Your task to perform on an android device: toggle airplane mode Image 0: 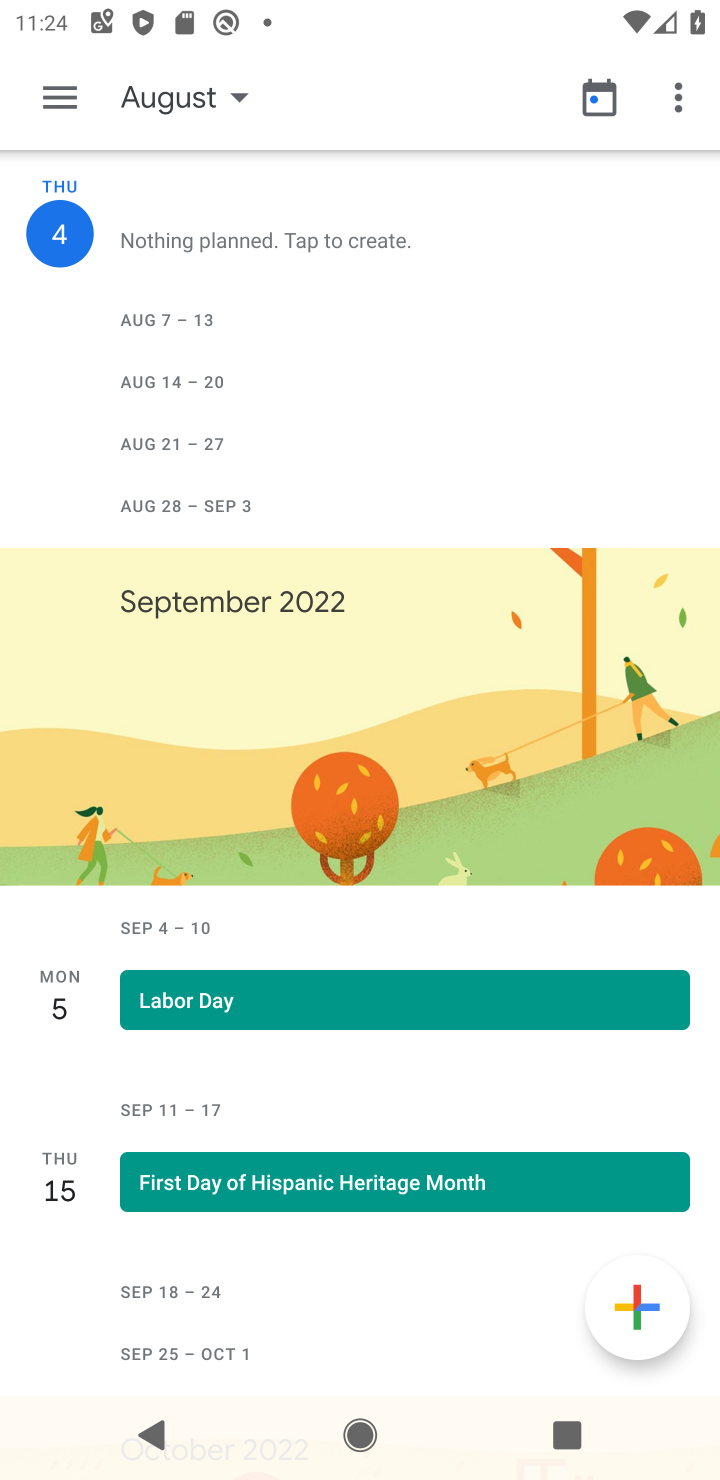
Step 0: press home button
Your task to perform on an android device: toggle airplane mode Image 1: 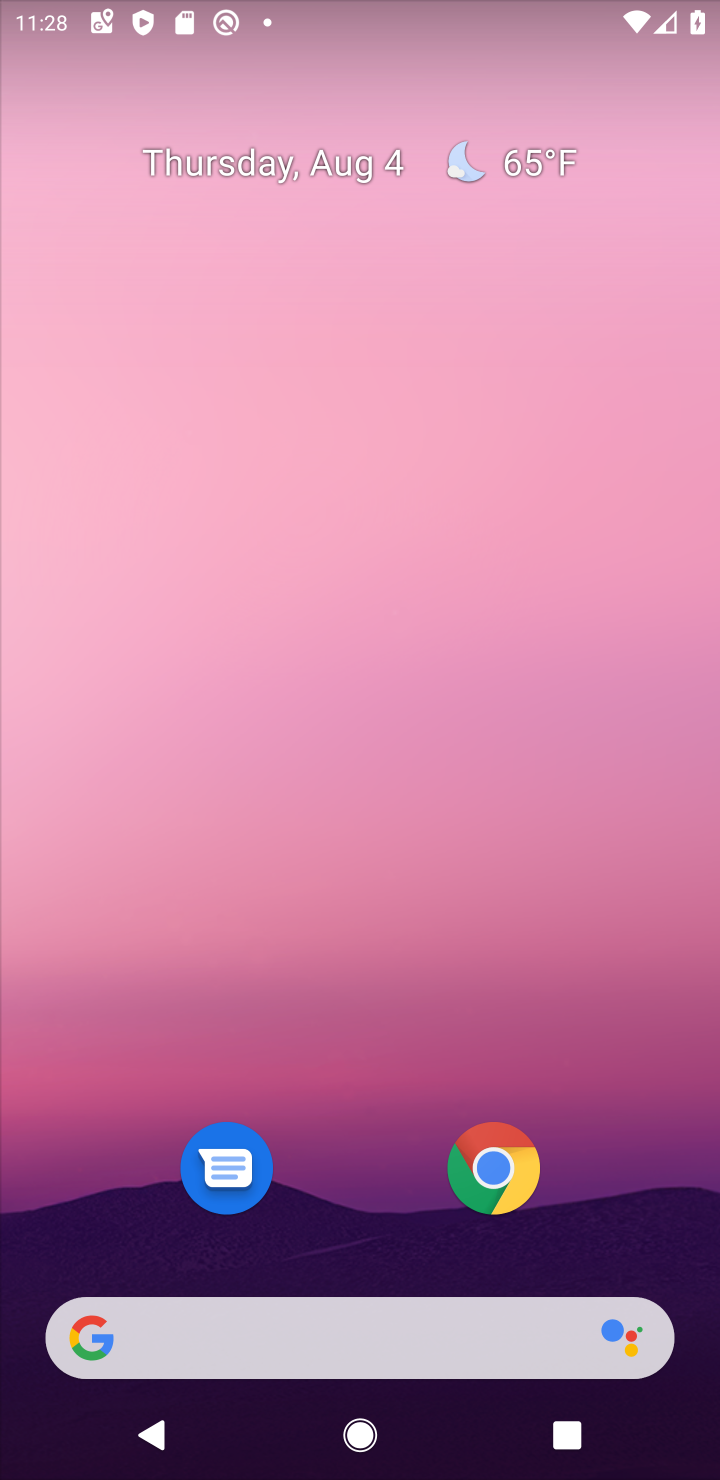
Step 1: drag from (366, 5) to (562, 1229)
Your task to perform on an android device: toggle airplane mode Image 2: 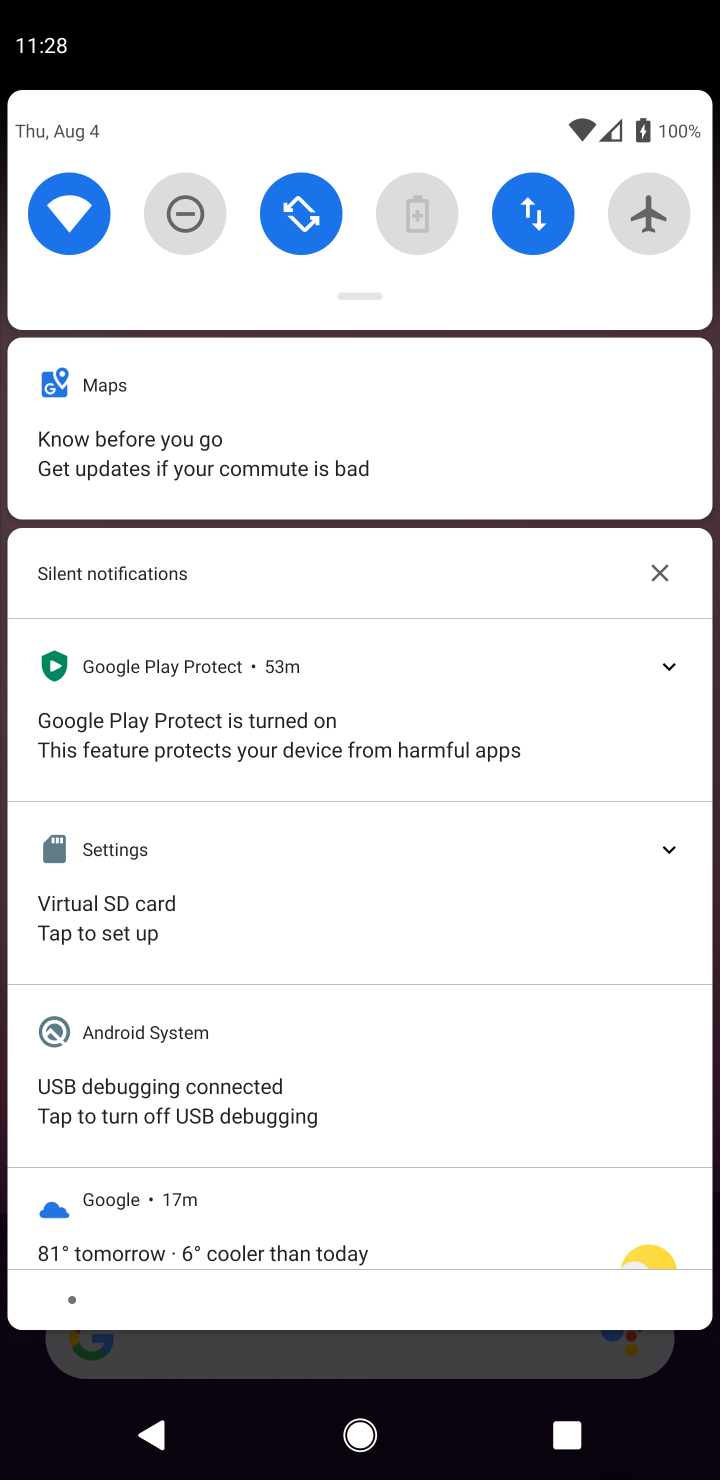
Step 2: click (618, 203)
Your task to perform on an android device: toggle airplane mode Image 3: 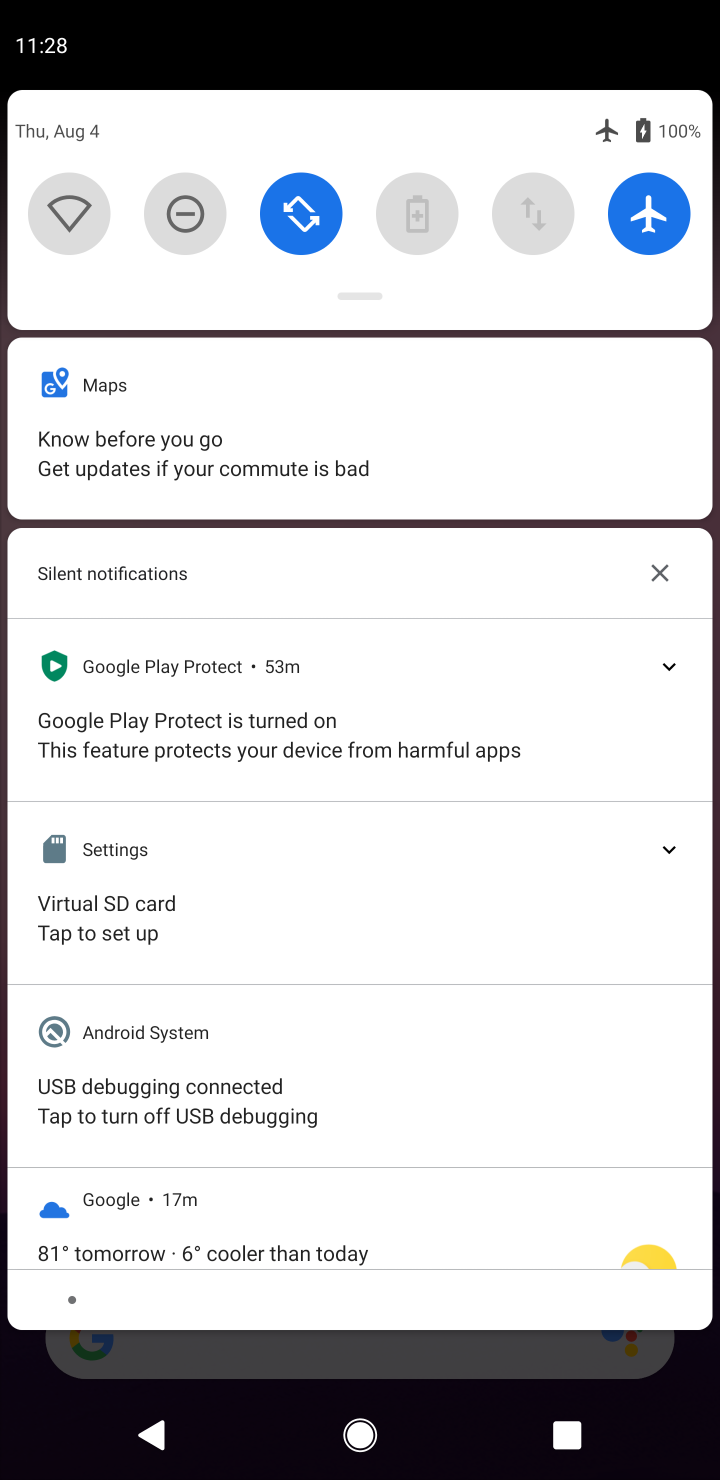
Step 3: task complete